Your task to perform on an android device: What's the weather? Image 0: 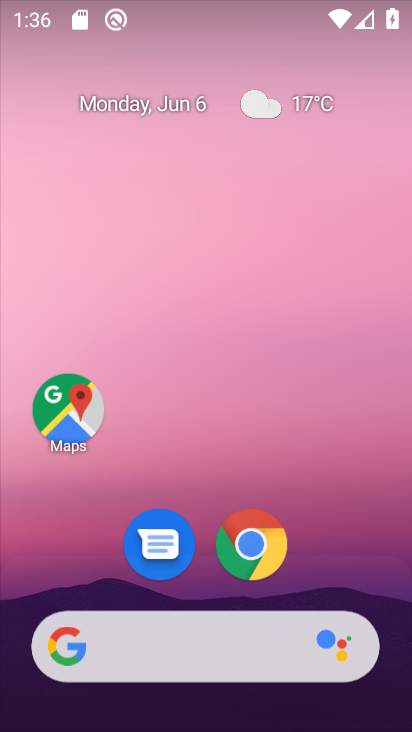
Step 0: drag from (370, 522) to (336, 151)
Your task to perform on an android device: What's the weather? Image 1: 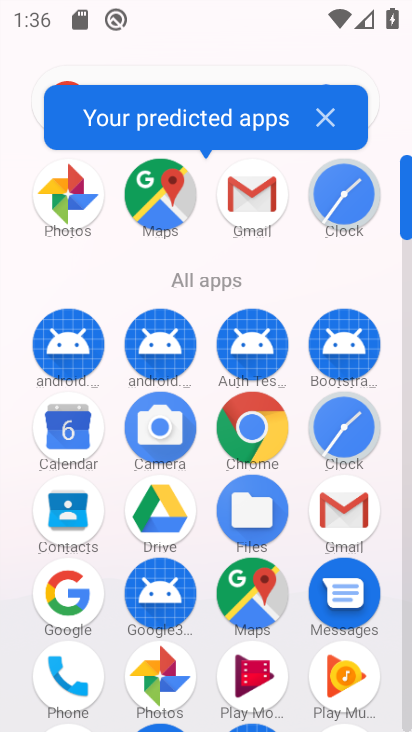
Step 1: drag from (334, 593) to (273, 322)
Your task to perform on an android device: What's the weather? Image 2: 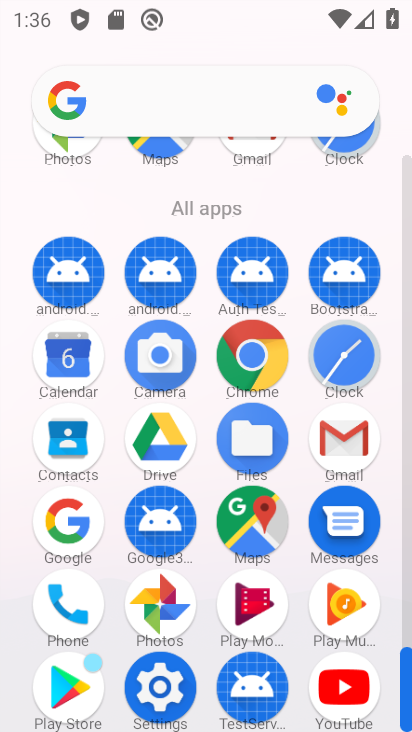
Step 2: click (267, 360)
Your task to perform on an android device: What's the weather? Image 3: 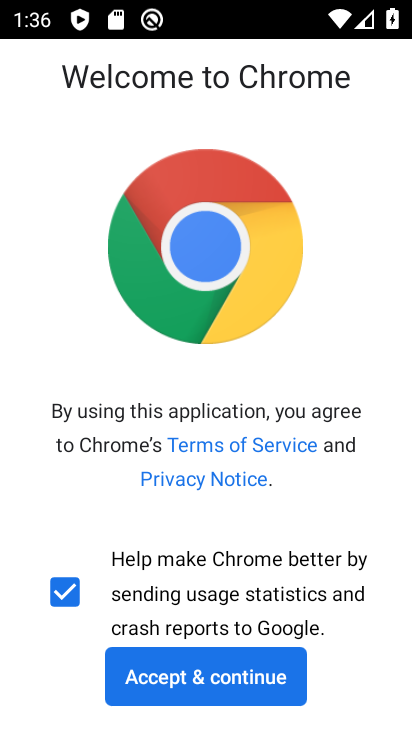
Step 3: click (288, 666)
Your task to perform on an android device: What's the weather? Image 4: 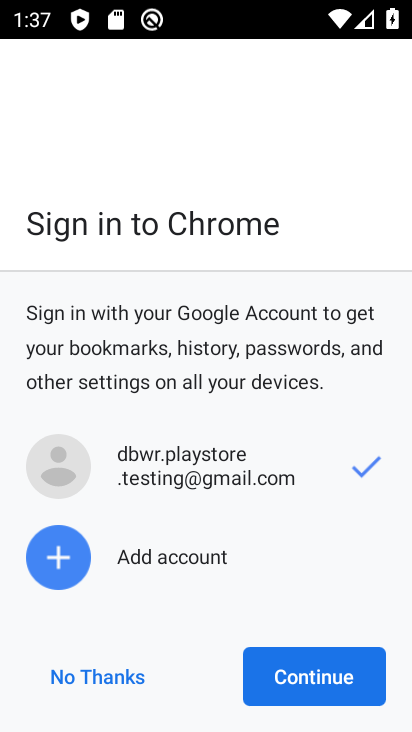
Step 4: click (294, 667)
Your task to perform on an android device: What's the weather? Image 5: 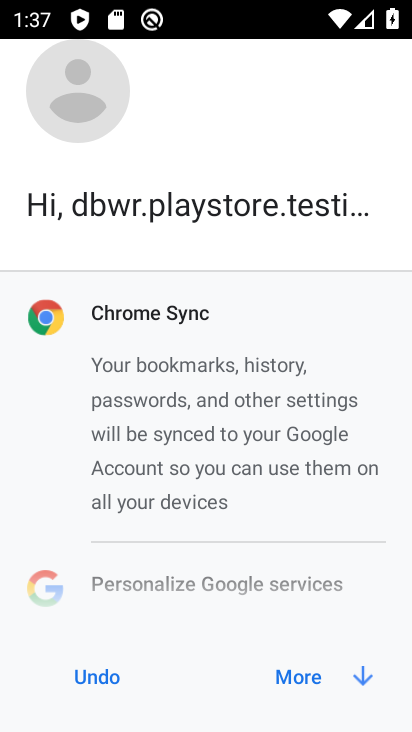
Step 5: click (309, 675)
Your task to perform on an android device: What's the weather? Image 6: 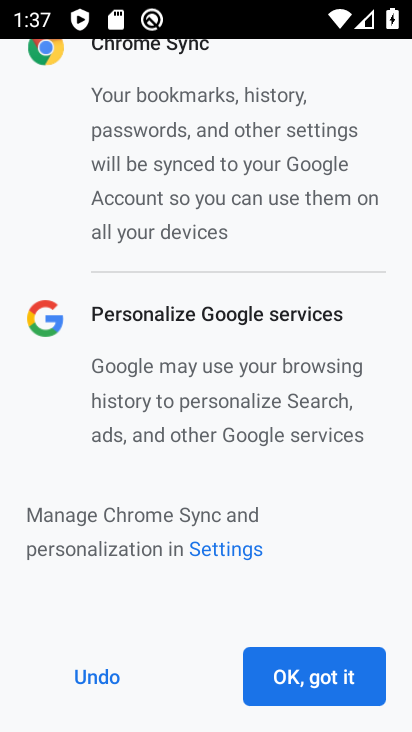
Step 6: click (309, 675)
Your task to perform on an android device: What's the weather? Image 7: 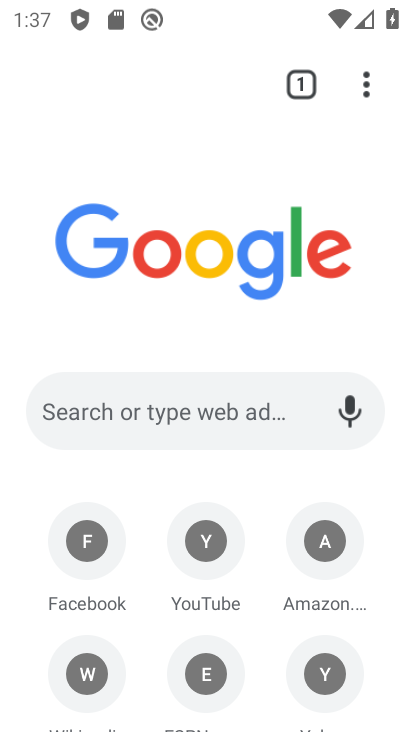
Step 7: click (183, 410)
Your task to perform on an android device: What's the weather? Image 8: 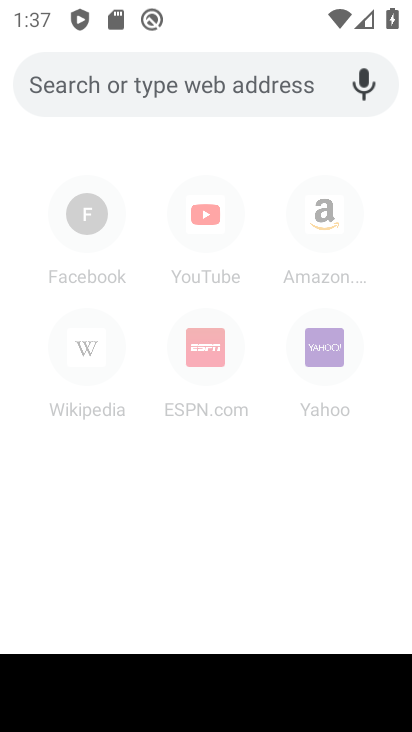
Step 8: type "what's the weather"
Your task to perform on an android device: What's the weather? Image 9: 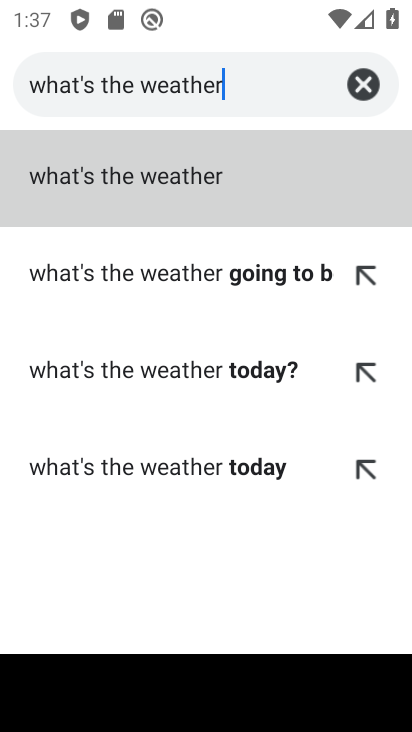
Step 9: click (170, 168)
Your task to perform on an android device: What's the weather? Image 10: 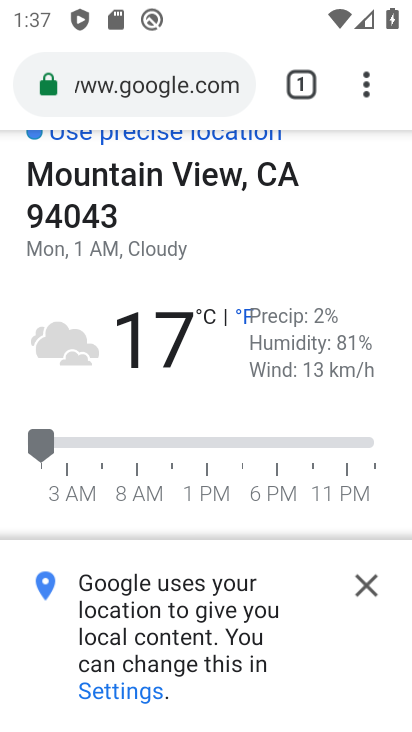
Step 10: task complete